Your task to perform on an android device: visit the assistant section in the google photos Image 0: 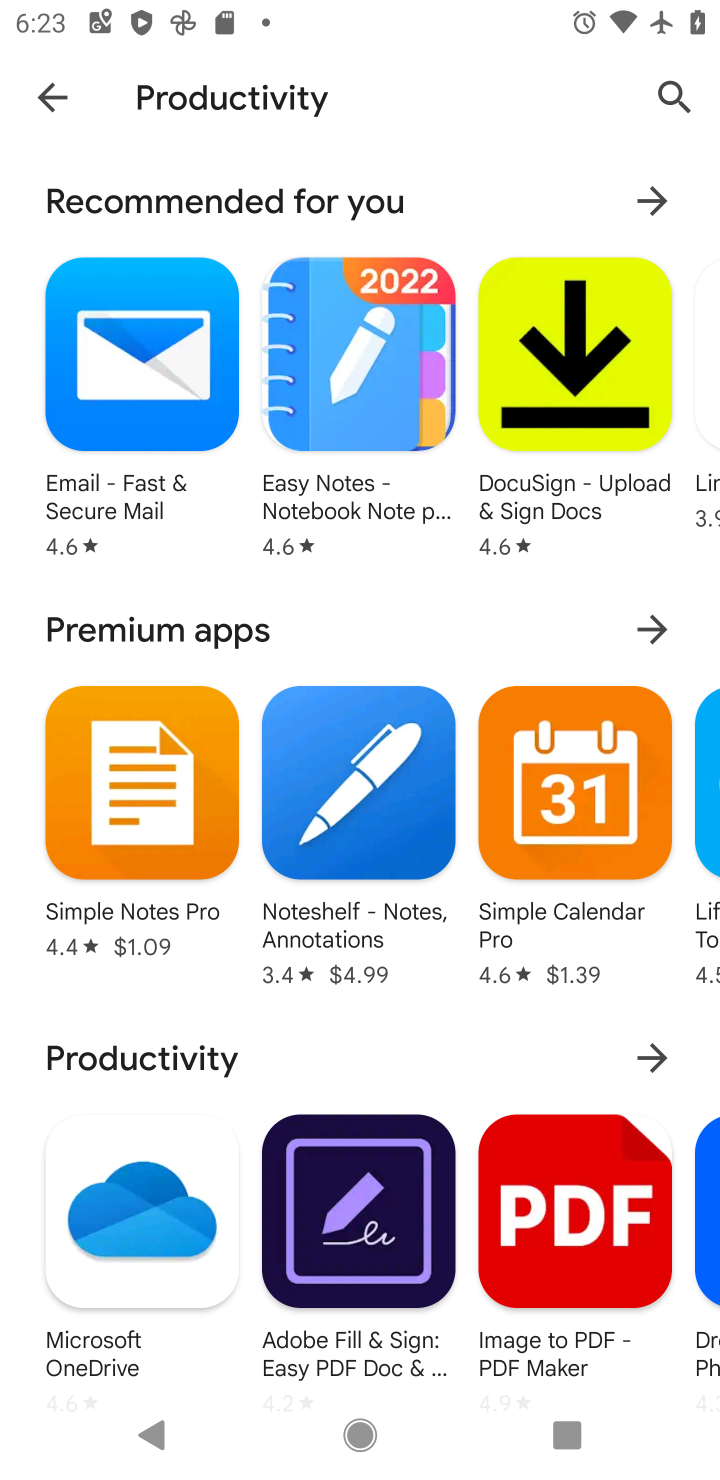
Step 0: press home button
Your task to perform on an android device: visit the assistant section in the google photos Image 1: 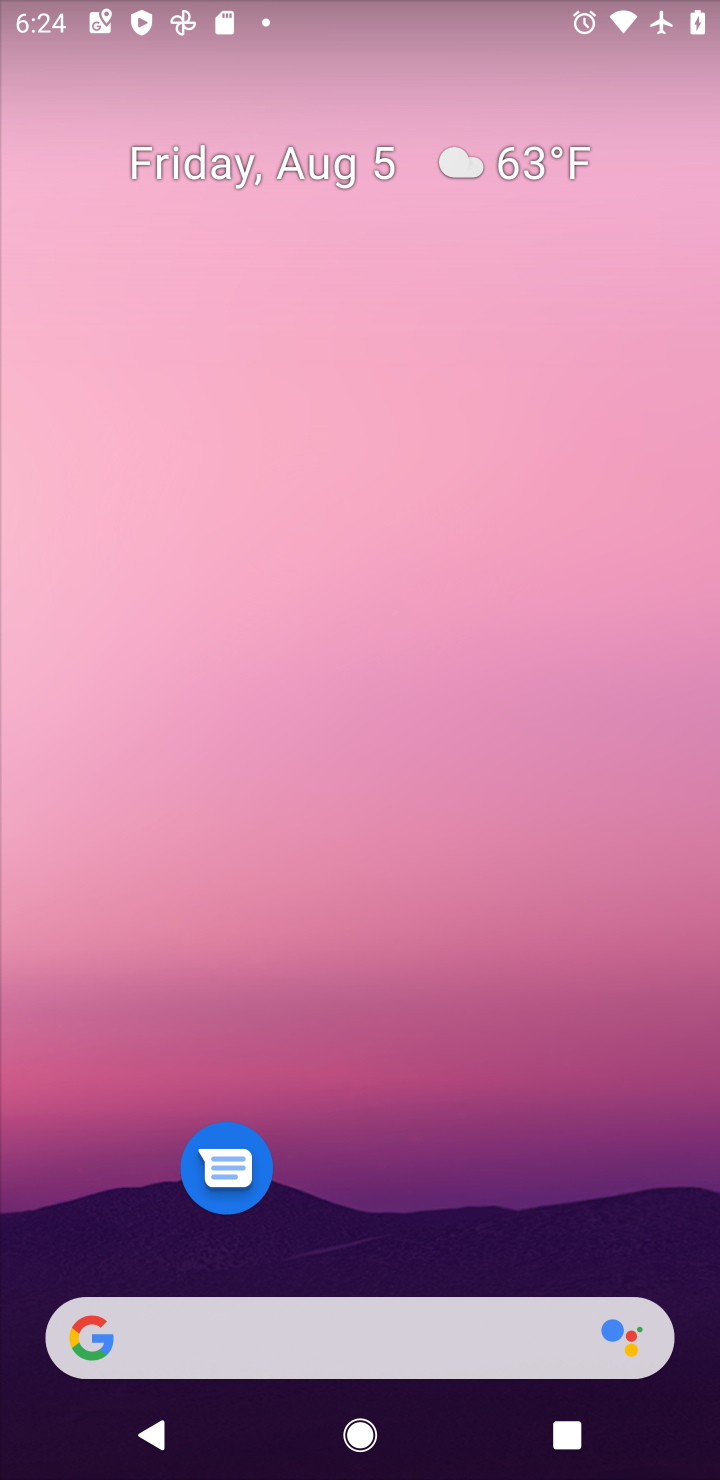
Step 1: drag from (409, 1268) to (514, 357)
Your task to perform on an android device: visit the assistant section in the google photos Image 2: 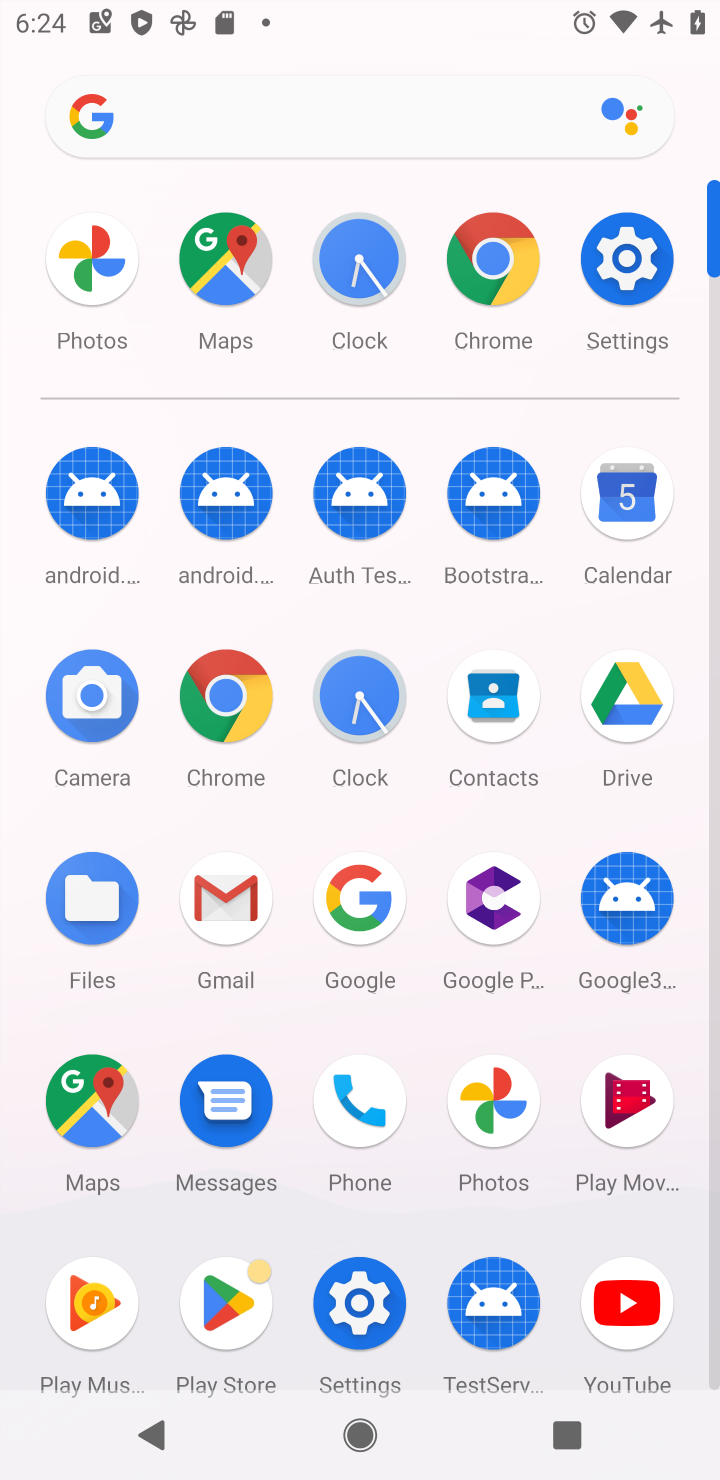
Step 2: click (494, 1099)
Your task to perform on an android device: visit the assistant section in the google photos Image 3: 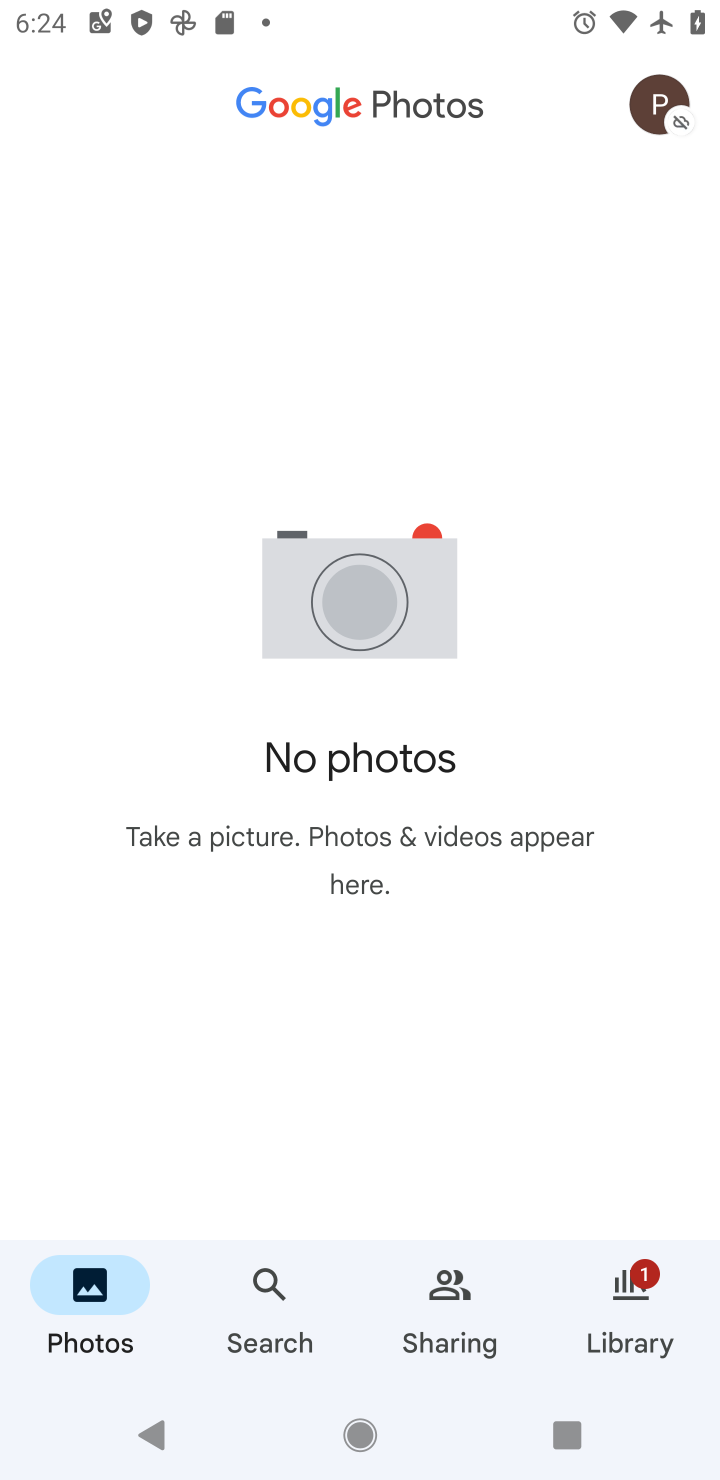
Step 3: task complete